Your task to perform on an android device: Open location settings Image 0: 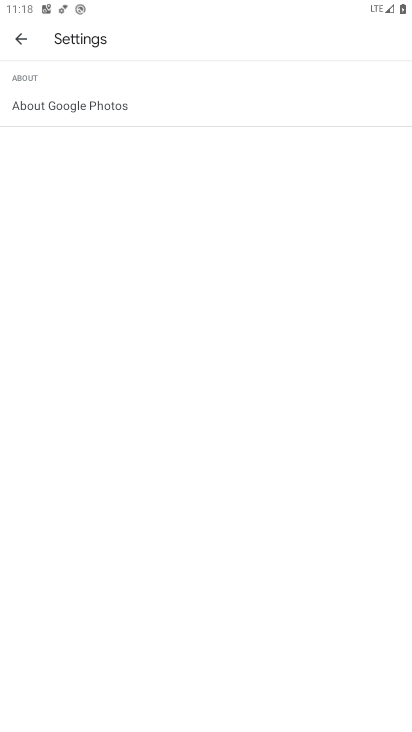
Step 0: press home button
Your task to perform on an android device: Open location settings Image 1: 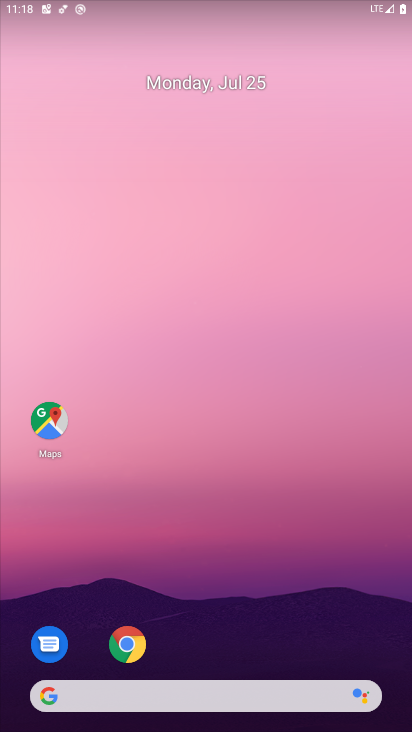
Step 1: drag from (386, 671) to (163, 102)
Your task to perform on an android device: Open location settings Image 2: 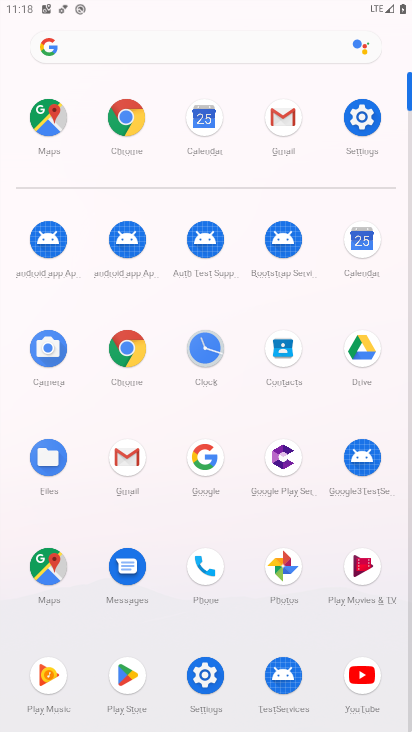
Step 2: click (220, 687)
Your task to perform on an android device: Open location settings Image 3: 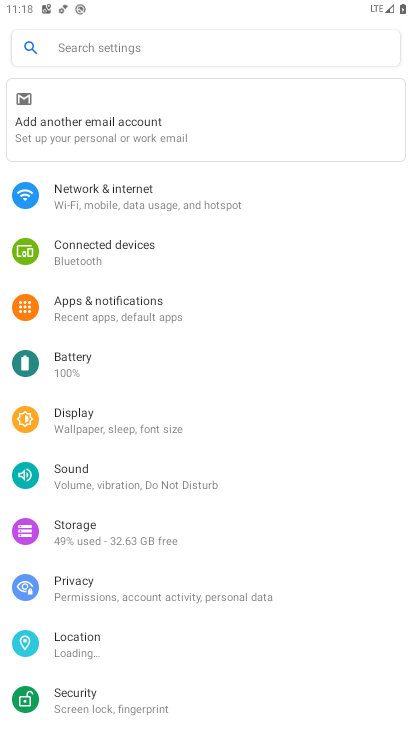
Step 3: drag from (213, 536) to (187, 235)
Your task to perform on an android device: Open location settings Image 4: 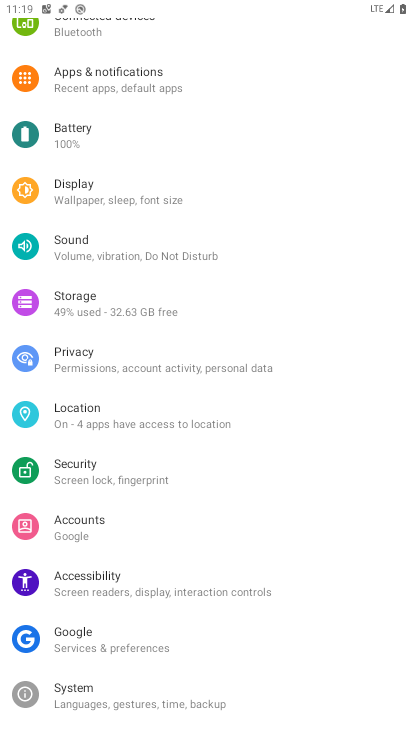
Step 4: click (95, 416)
Your task to perform on an android device: Open location settings Image 5: 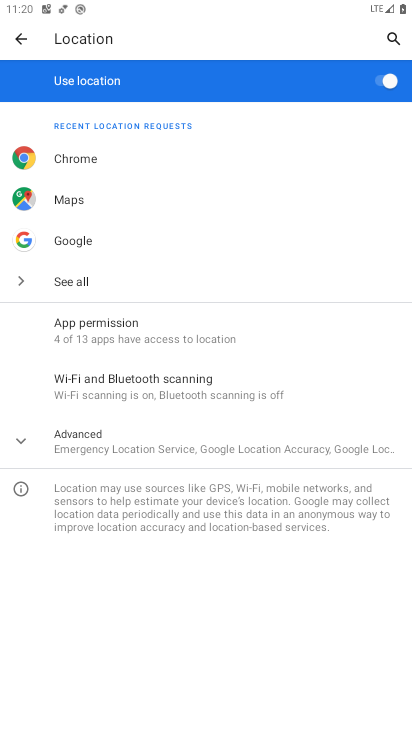
Step 5: task complete